Your task to perform on an android device: delete the emails in spam in the gmail app Image 0: 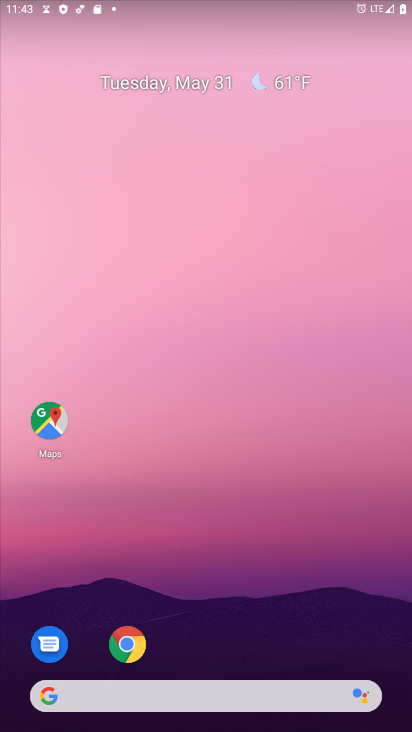
Step 0: drag from (286, 627) to (410, 128)
Your task to perform on an android device: delete the emails in spam in the gmail app Image 1: 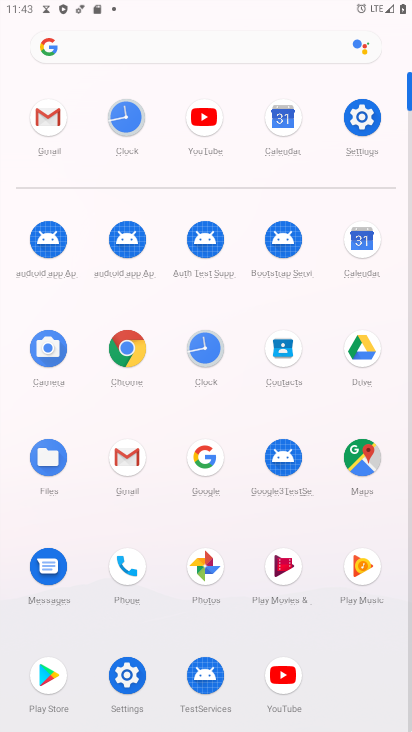
Step 1: click (45, 109)
Your task to perform on an android device: delete the emails in spam in the gmail app Image 2: 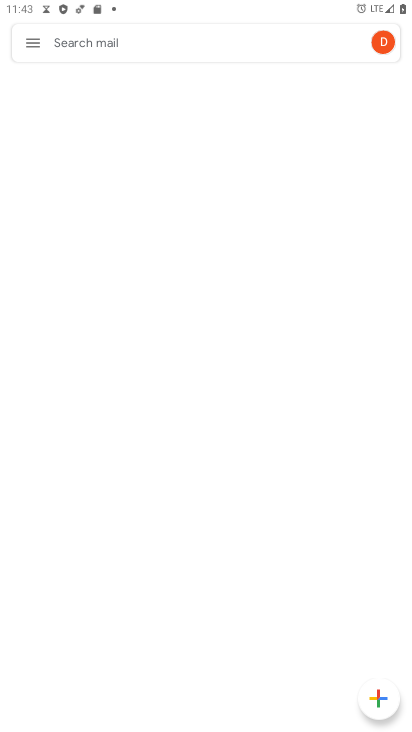
Step 2: click (29, 42)
Your task to perform on an android device: delete the emails in spam in the gmail app Image 3: 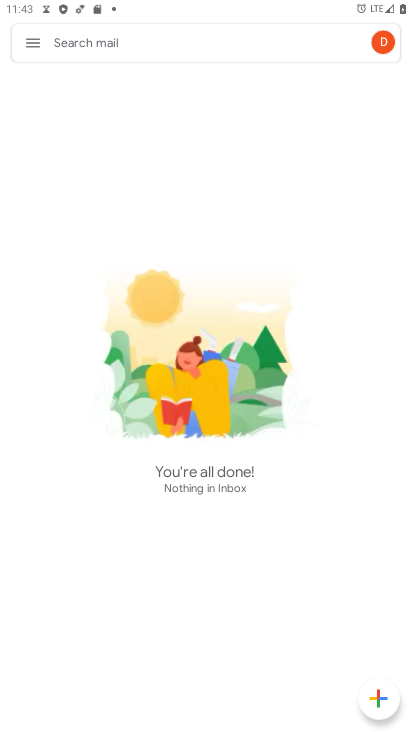
Step 3: click (30, 39)
Your task to perform on an android device: delete the emails in spam in the gmail app Image 4: 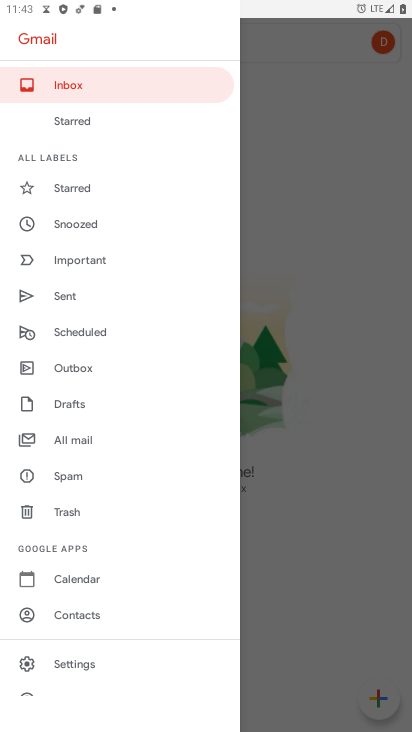
Step 4: click (67, 484)
Your task to perform on an android device: delete the emails in spam in the gmail app Image 5: 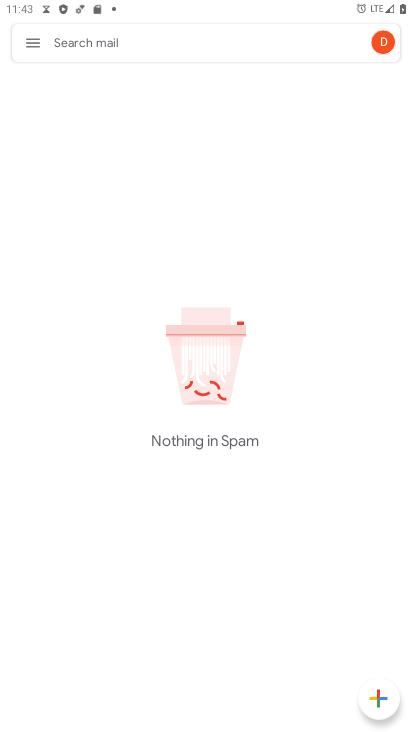
Step 5: task complete